Your task to perform on an android device: toggle priority inbox in the gmail app Image 0: 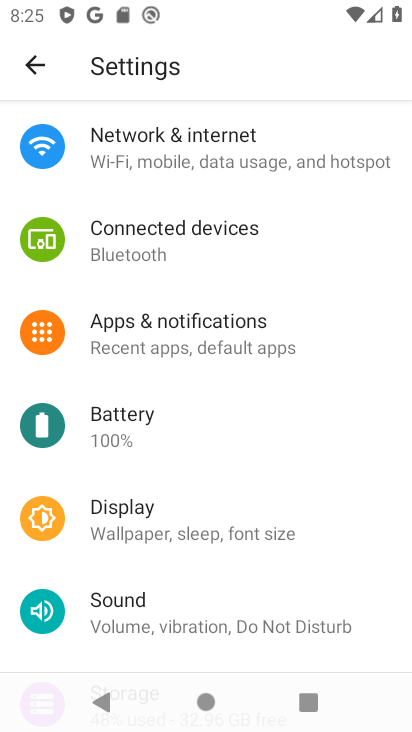
Step 0: press home button
Your task to perform on an android device: toggle priority inbox in the gmail app Image 1: 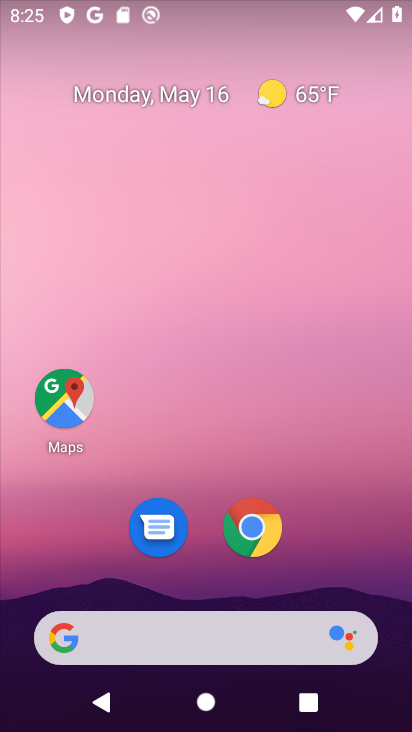
Step 1: drag from (210, 565) to (229, 119)
Your task to perform on an android device: toggle priority inbox in the gmail app Image 2: 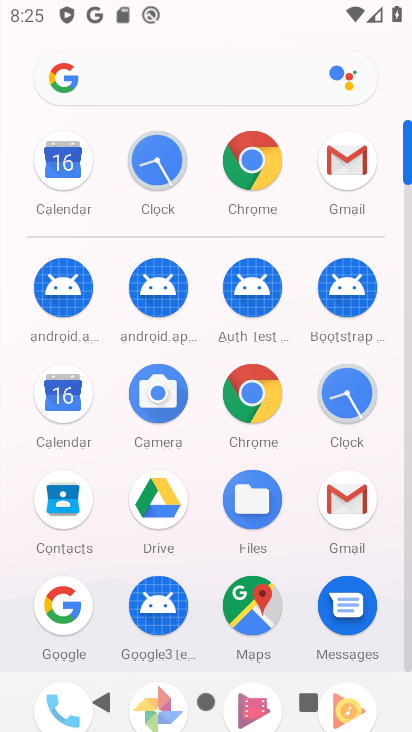
Step 2: click (343, 496)
Your task to perform on an android device: toggle priority inbox in the gmail app Image 3: 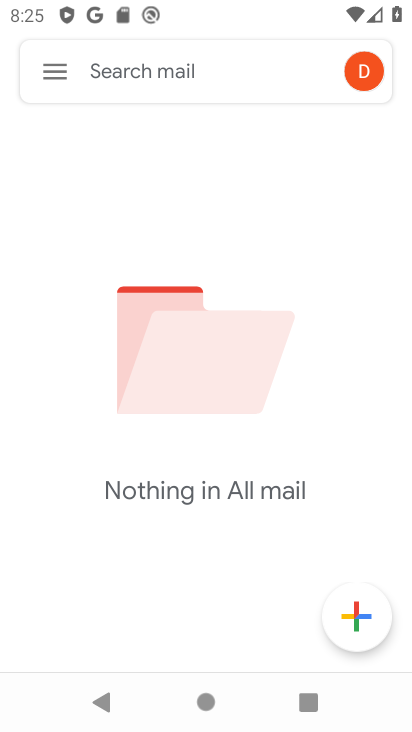
Step 3: click (41, 68)
Your task to perform on an android device: toggle priority inbox in the gmail app Image 4: 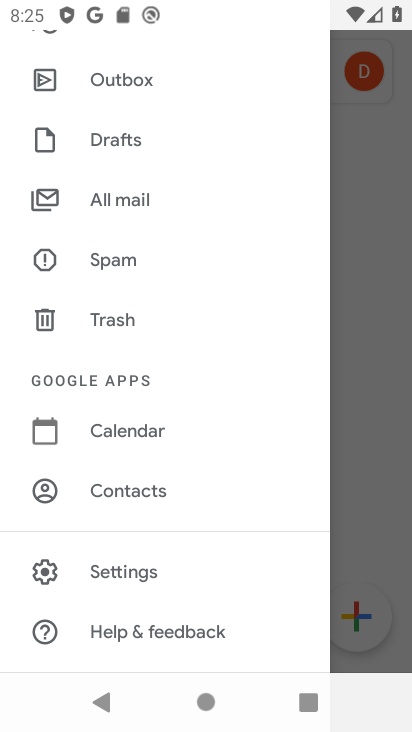
Step 4: click (156, 568)
Your task to perform on an android device: toggle priority inbox in the gmail app Image 5: 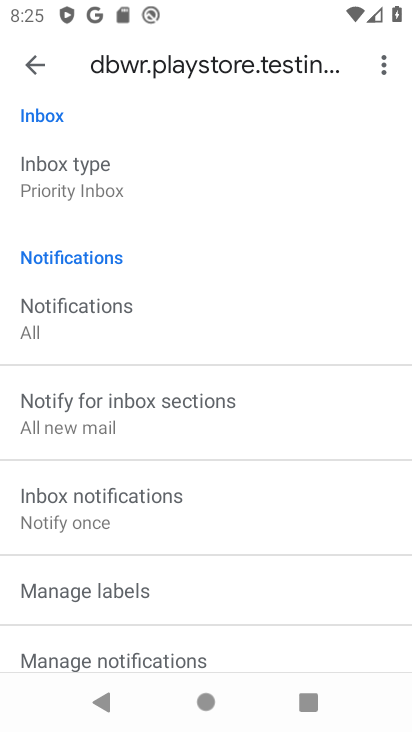
Step 5: click (88, 167)
Your task to perform on an android device: toggle priority inbox in the gmail app Image 6: 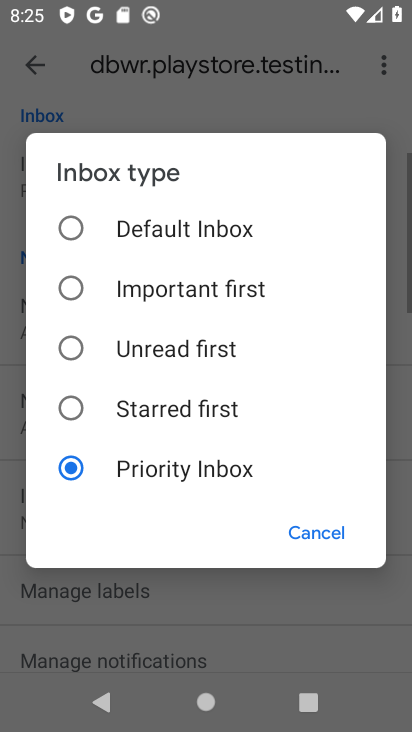
Step 6: click (193, 218)
Your task to perform on an android device: toggle priority inbox in the gmail app Image 7: 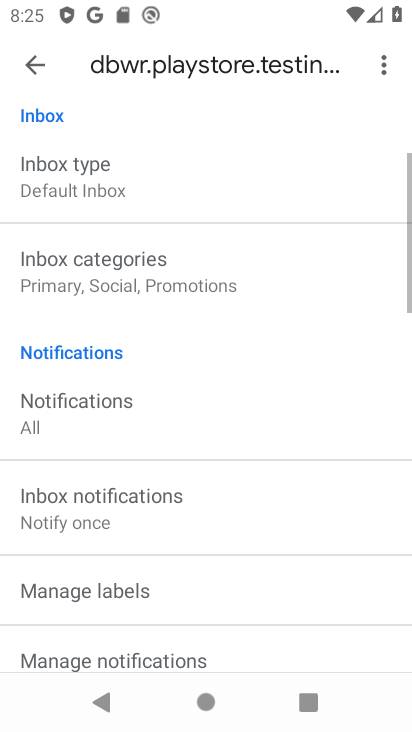
Step 7: task complete